Your task to perform on an android device: Search for Italian restaurants on Maps Image 0: 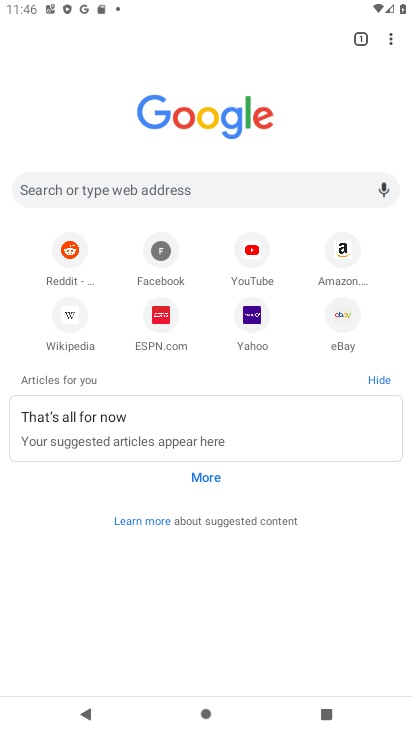
Step 0: press home button
Your task to perform on an android device: Search for Italian restaurants on Maps Image 1: 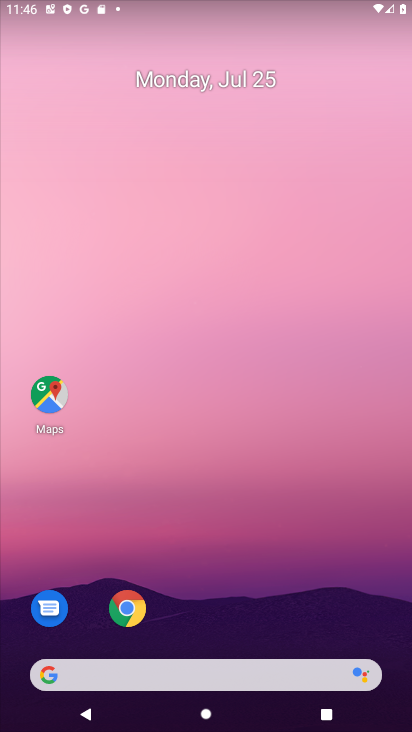
Step 1: click (164, 682)
Your task to perform on an android device: Search for Italian restaurants on Maps Image 2: 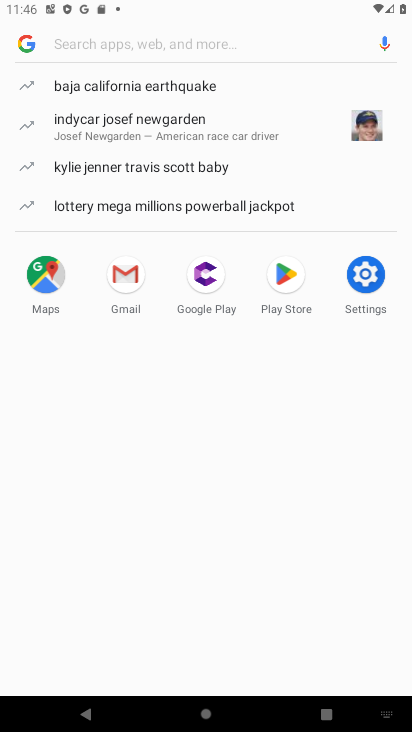
Step 2: press home button
Your task to perform on an android device: Search for Italian restaurants on Maps Image 3: 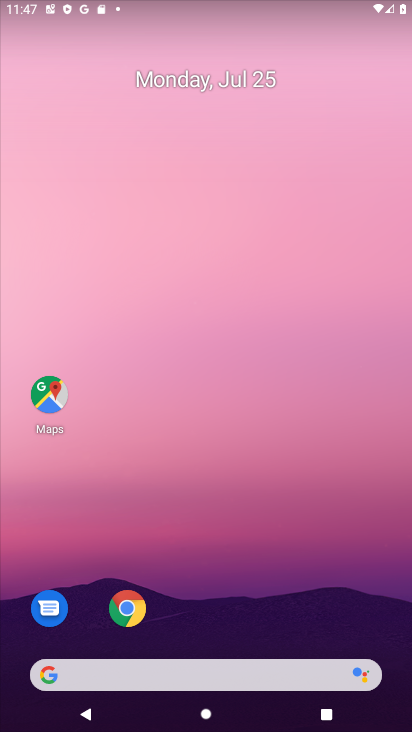
Step 3: click (23, 380)
Your task to perform on an android device: Search for Italian restaurants on Maps Image 4: 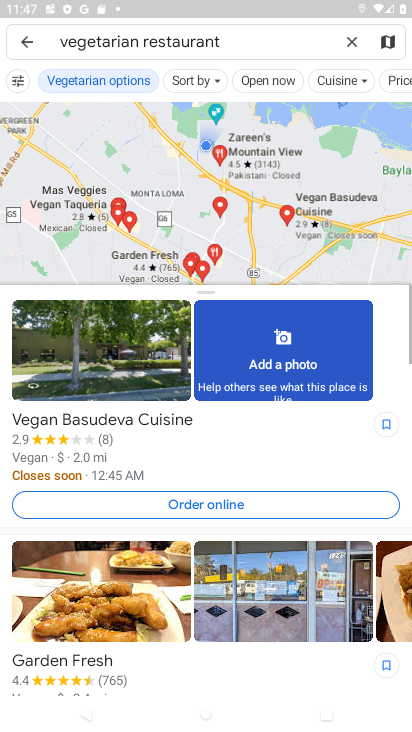
Step 4: click (358, 42)
Your task to perform on an android device: Search for Italian restaurants on Maps Image 5: 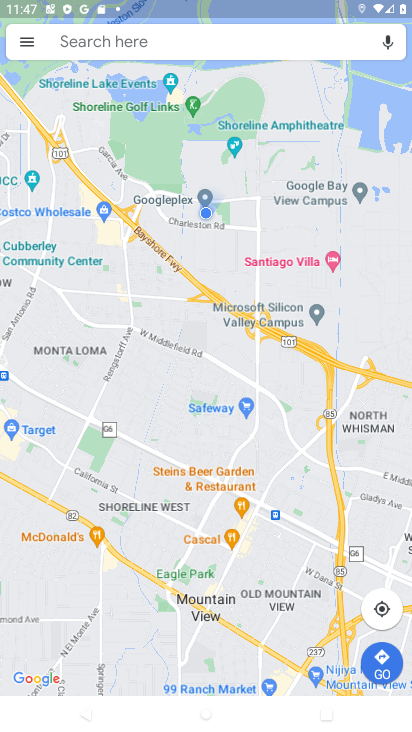
Step 5: click (345, 41)
Your task to perform on an android device: Search for Italian restaurants on Maps Image 6: 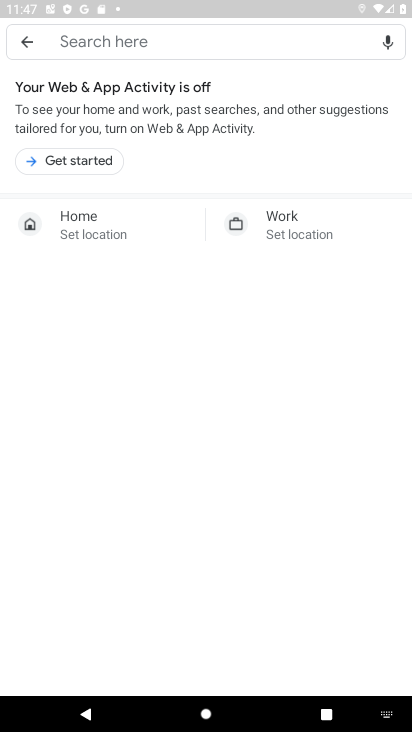
Step 6: type "italian restaurant"
Your task to perform on an android device: Search for Italian restaurants on Maps Image 7: 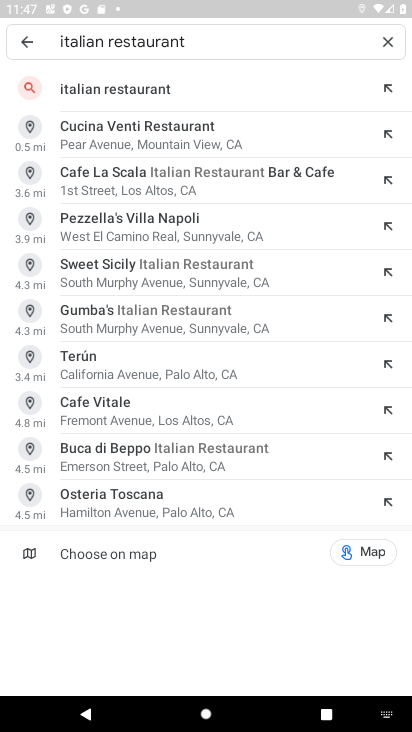
Step 7: click (167, 78)
Your task to perform on an android device: Search for Italian restaurants on Maps Image 8: 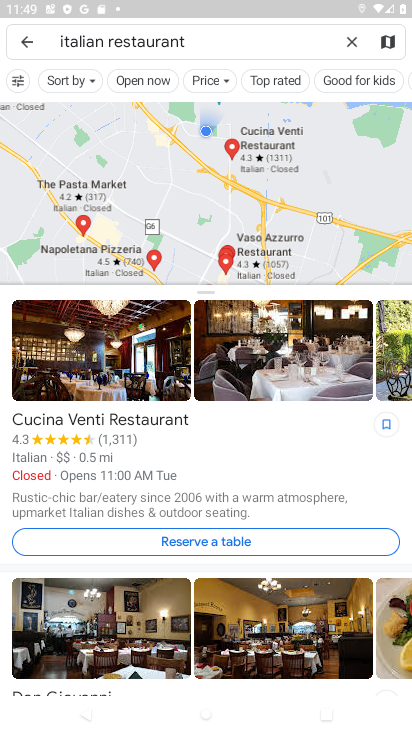
Step 8: task complete